Your task to perform on an android device: Go to Yahoo.com Image 0: 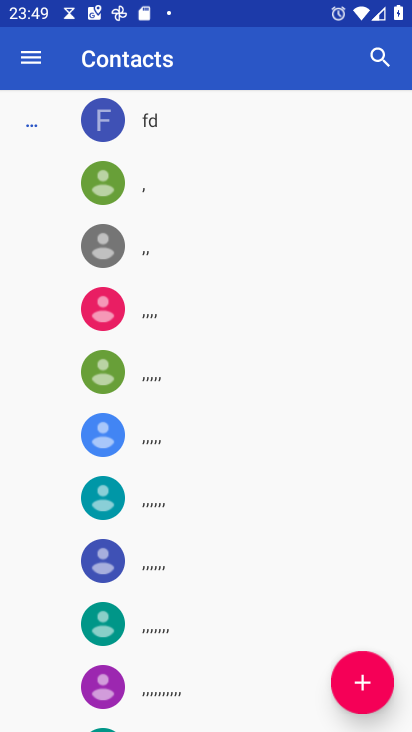
Step 0: press home button
Your task to perform on an android device: Go to Yahoo.com Image 1: 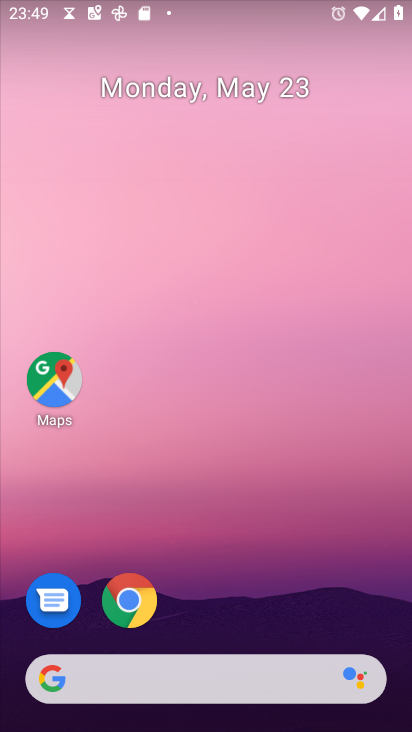
Step 1: click (132, 602)
Your task to perform on an android device: Go to Yahoo.com Image 2: 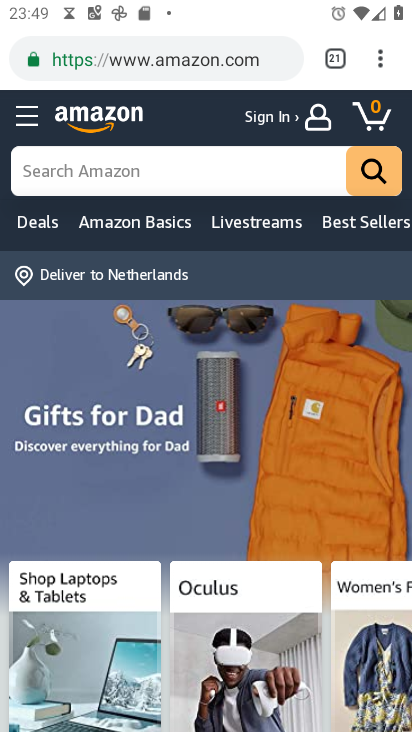
Step 2: click (383, 61)
Your task to perform on an android device: Go to Yahoo.com Image 3: 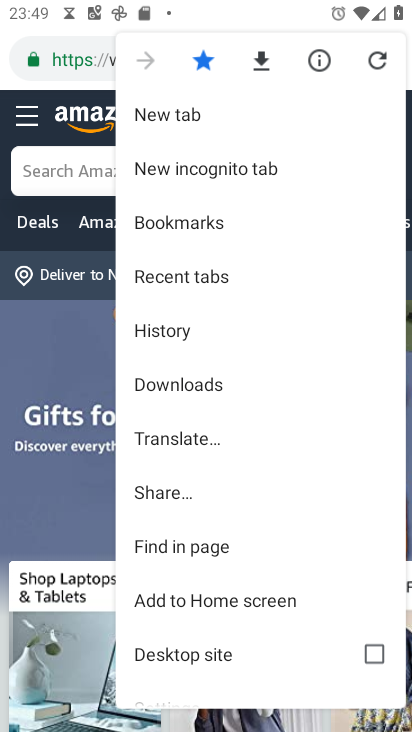
Step 3: click (184, 109)
Your task to perform on an android device: Go to Yahoo.com Image 4: 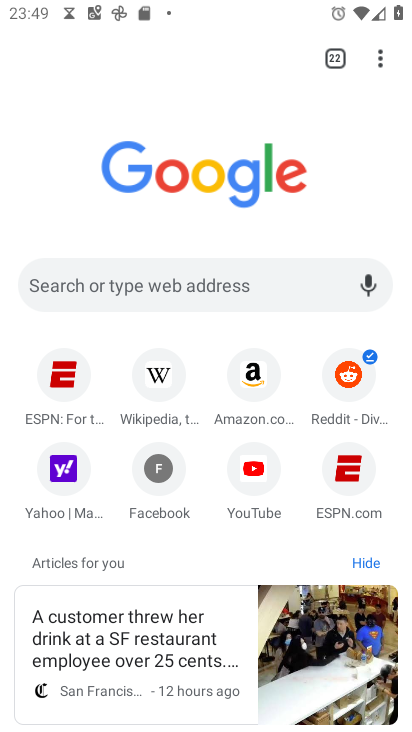
Step 4: click (58, 467)
Your task to perform on an android device: Go to Yahoo.com Image 5: 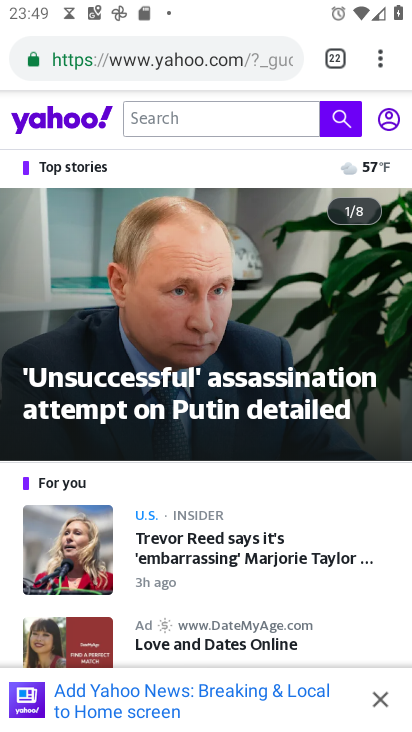
Step 5: task complete